Your task to perform on an android device: Open Google Chrome and click the shortcut for Amazon.com Image 0: 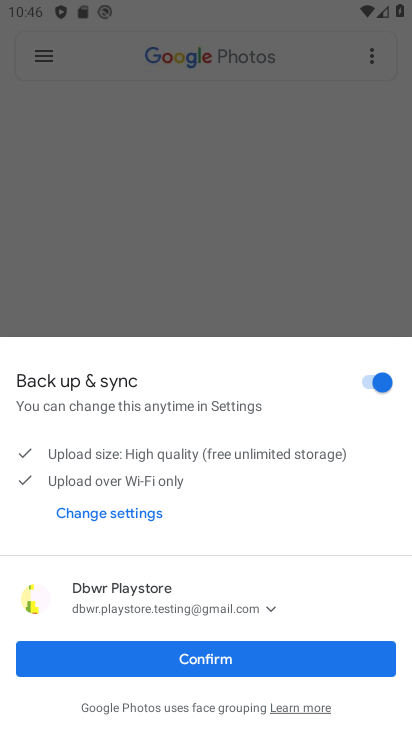
Step 0: press home button
Your task to perform on an android device: Open Google Chrome and click the shortcut for Amazon.com Image 1: 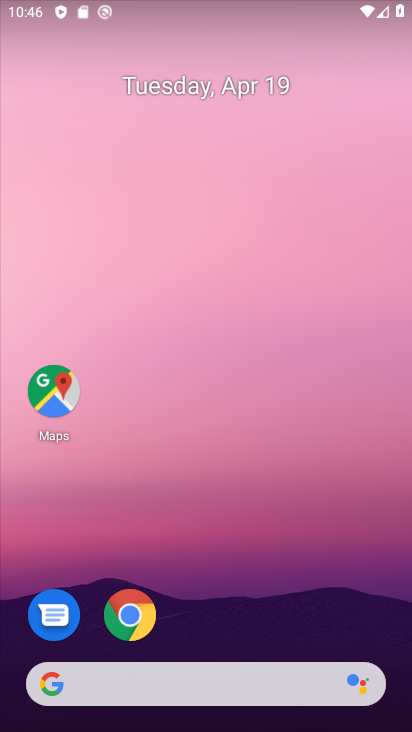
Step 1: click (130, 625)
Your task to perform on an android device: Open Google Chrome and click the shortcut for Amazon.com Image 2: 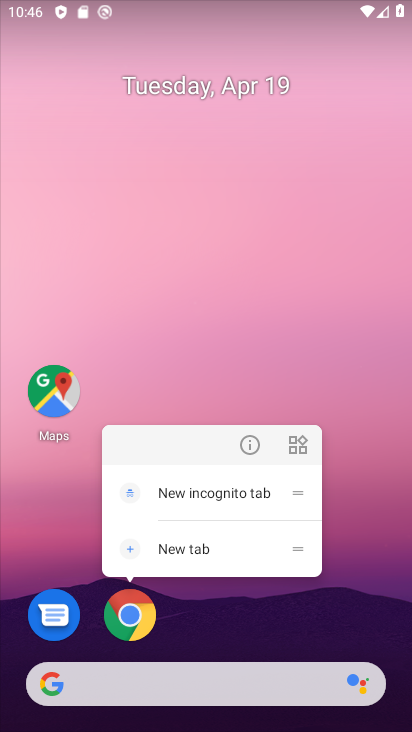
Step 2: click (130, 625)
Your task to perform on an android device: Open Google Chrome and click the shortcut for Amazon.com Image 3: 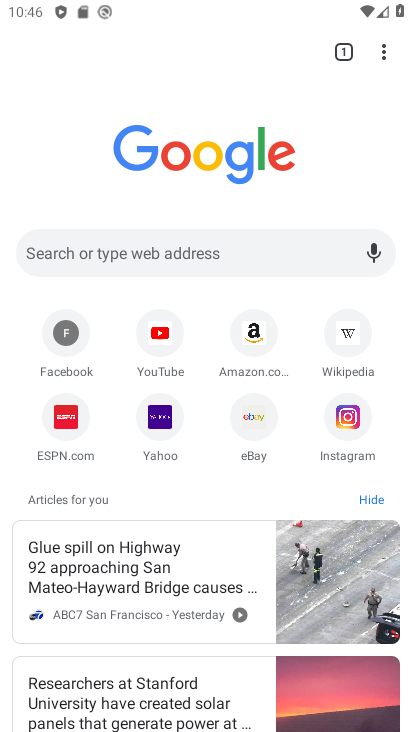
Step 3: click (242, 331)
Your task to perform on an android device: Open Google Chrome and click the shortcut for Amazon.com Image 4: 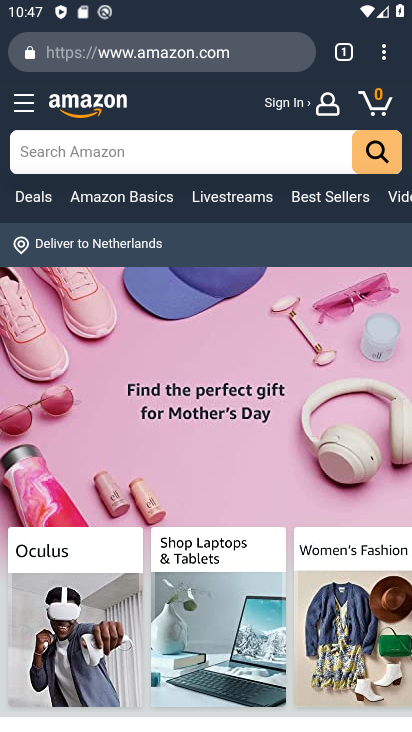
Step 4: task complete